Your task to perform on an android device: change the clock style Image 0: 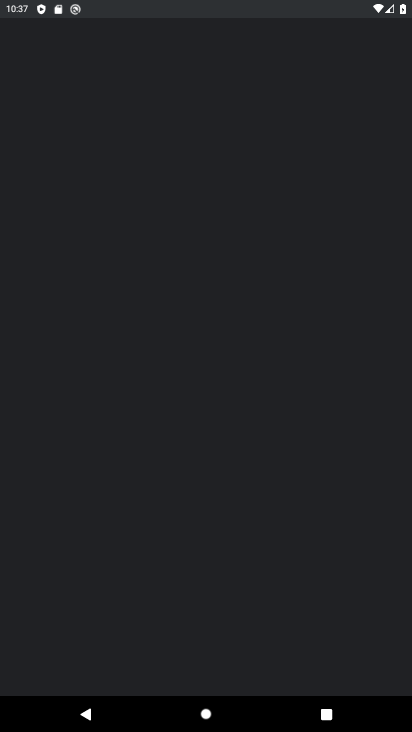
Step 0: press home button
Your task to perform on an android device: change the clock style Image 1: 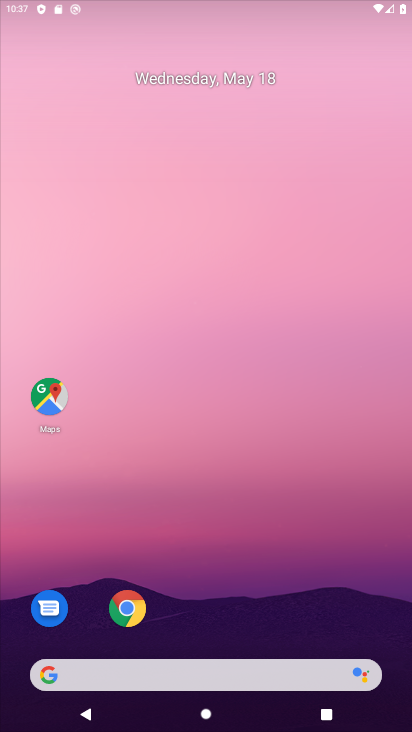
Step 1: drag from (264, 553) to (339, 48)
Your task to perform on an android device: change the clock style Image 2: 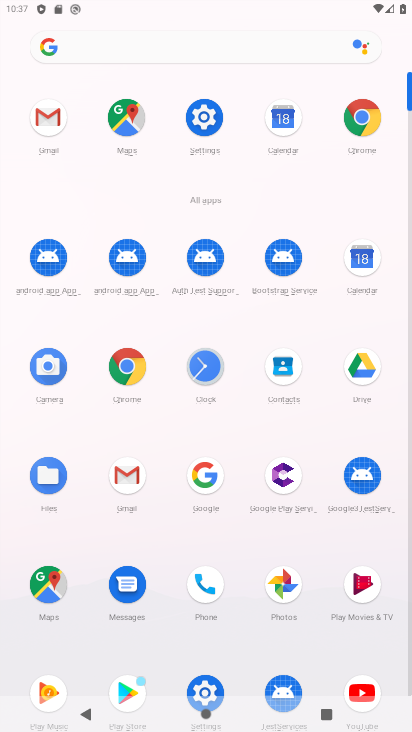
Step 2: click (227, 382)
Your task to perform on an android device: change the clock style Image 3: 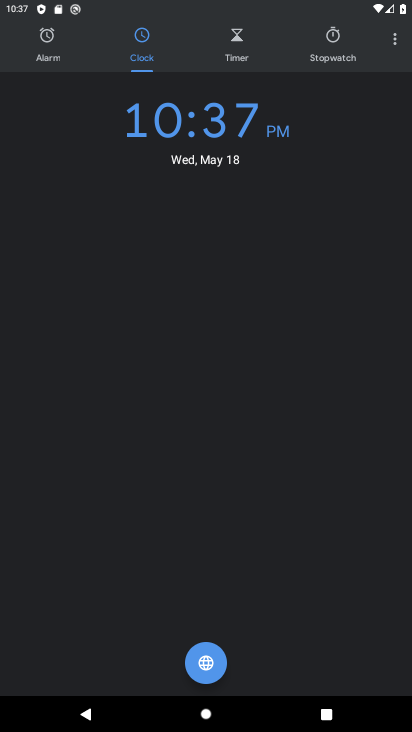
Step 3: click (397, 39)
Your task to perform on an android device: change the clock style Image 4: 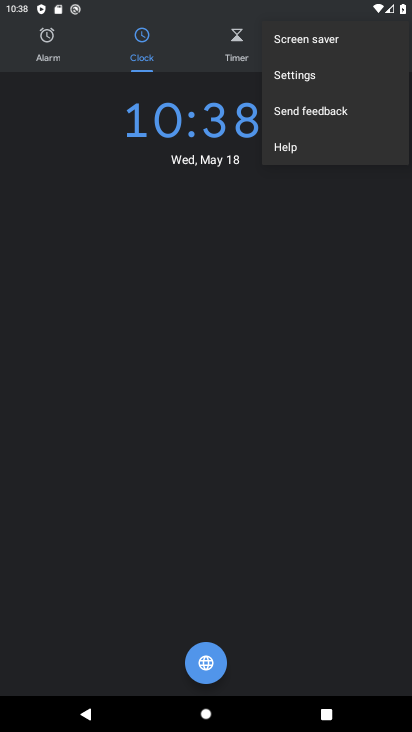
Step 4: click (289, 74)
Your task to perform on an android device: change the clock style Image 5: 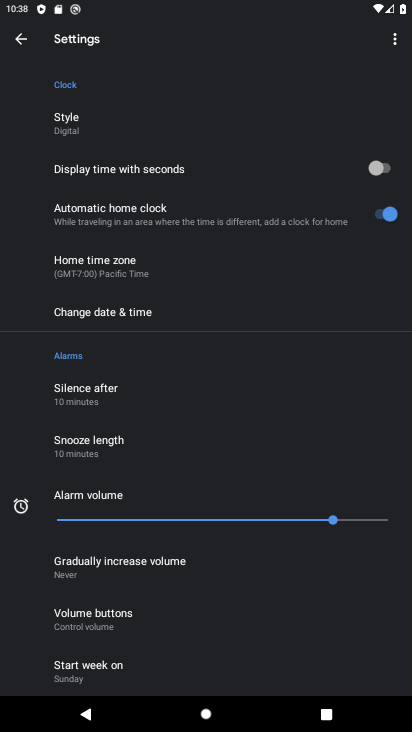
Step 5: click (67, 125)
Your task to perform on an android device: change the clock style Image 6: 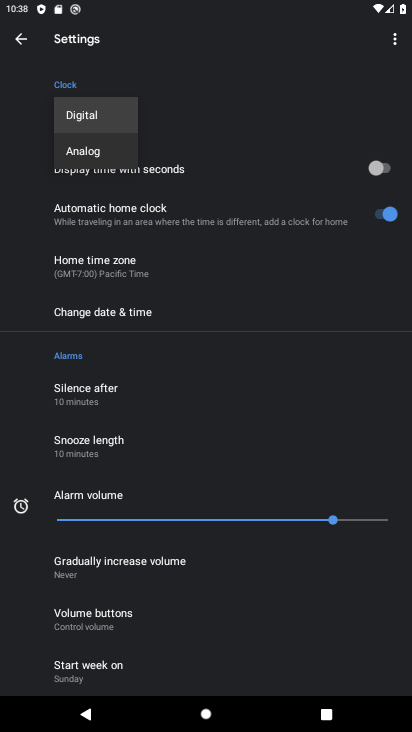
Step 6: click (70, 150)
Your task to perform on an android device: change the clock style Image 7: 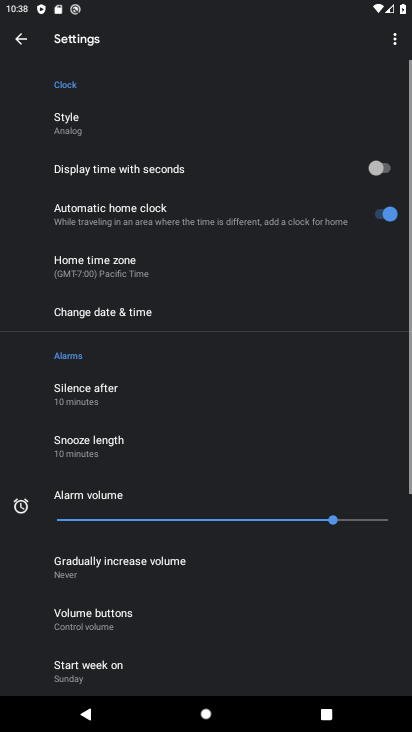
Step 7: task complete